Your task to perform on an android device: Search for sushi restaurants on Maps Image 0: 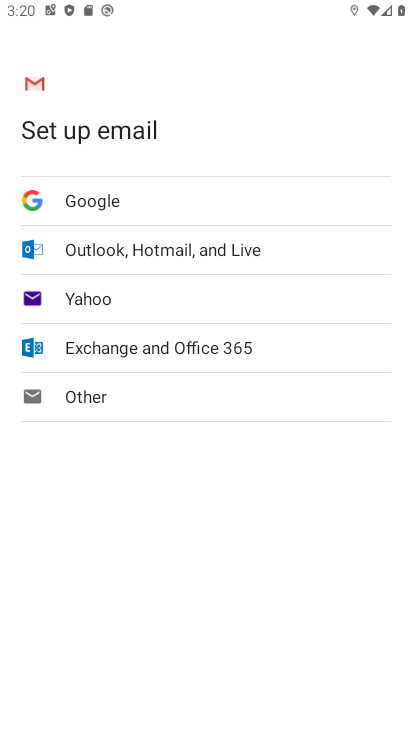
Step 0: press home button
Your task to perform on an android device: Search for sushi restaurants on Maps Image 1: 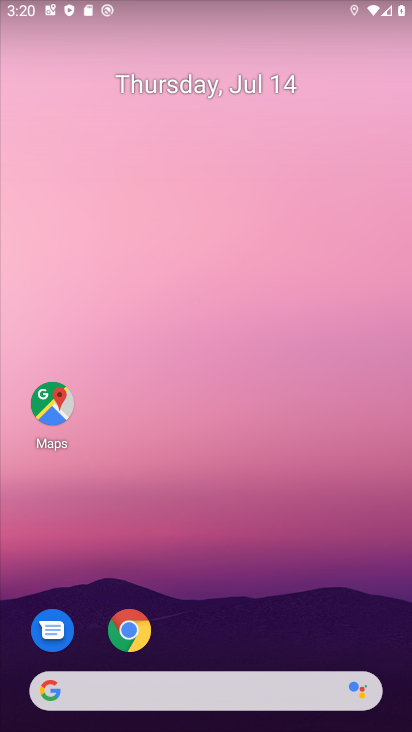
Step 1: click (273, 629)
Your task to perform on an android device: Search for sushi restaurants on Maps Image 2: 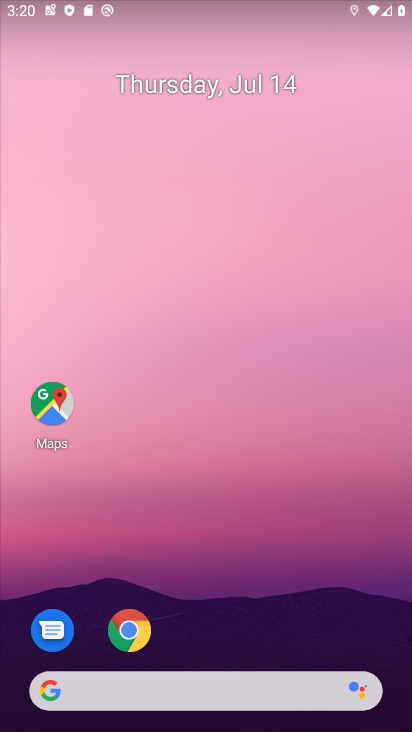
Step 2: click (61, 413)
Your task to perform on an android device: Search for sushi restaurants on Maps Image 3: 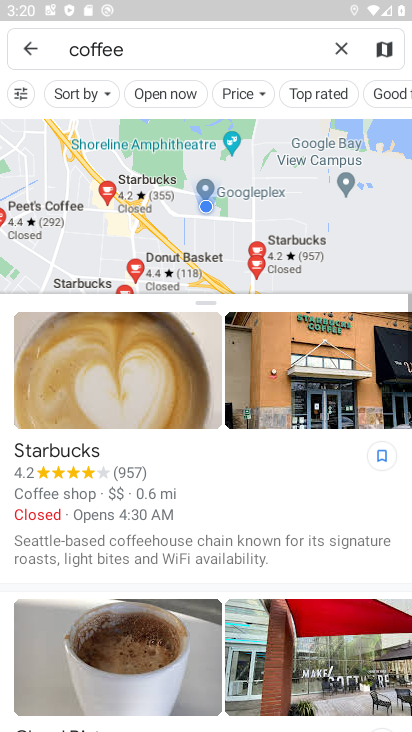
Step 3: click (344, 50)
Your task to perform on an android device: Search for sushi restaurants on Maps Image 4: 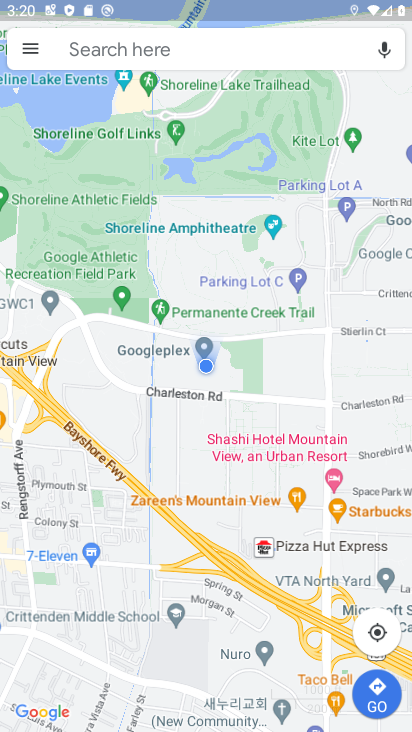
Step 4: click (184, 42)
Your task to perform on an android device: Search for sushi restaurants on Maps Image 5: 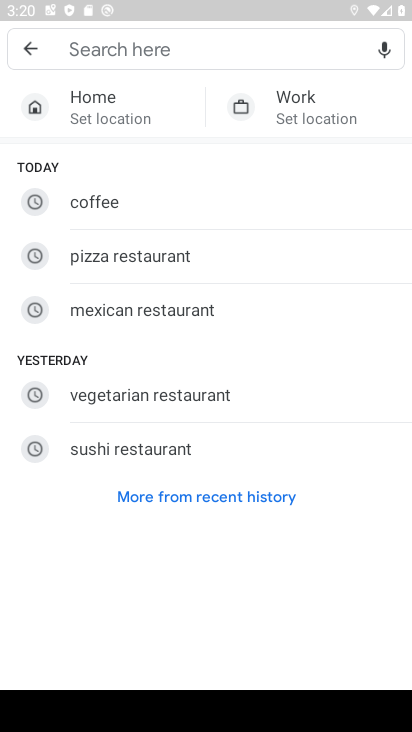
Step 5: click (214, 440)
Your task to perform on an android device: Search for sushi restaurants on Maps Image 6: 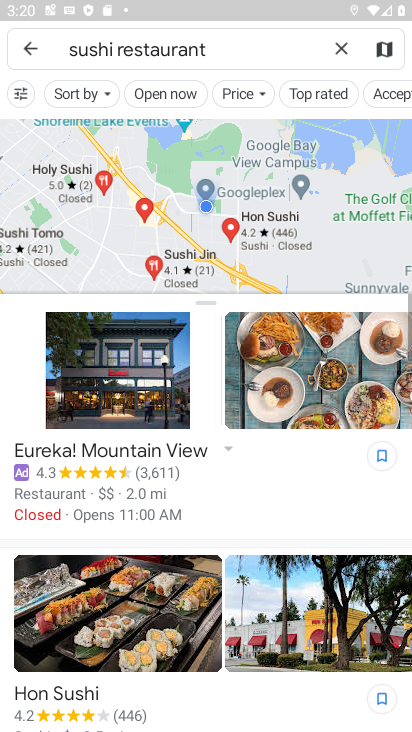
Step 6: task complete